Your task to perform on an android device: Open Chrome and go to the settings page Image 0: 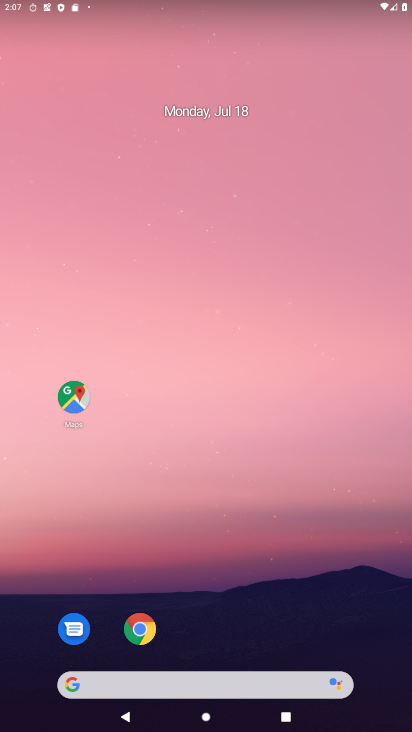
Step 0: press home button
Your task to perform on an android device: Open Chrome and go to the settings page Image 1: 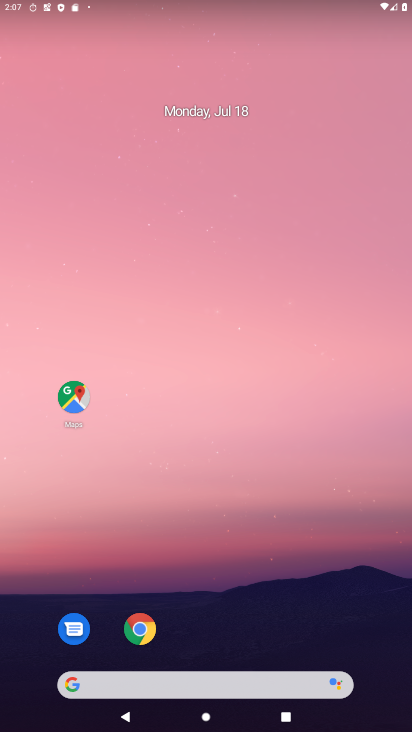
Step 1: drag from (199, 637) to (224, 149)
Your task to perform on an android device: Open Chrome and go to the settings page Image 2: 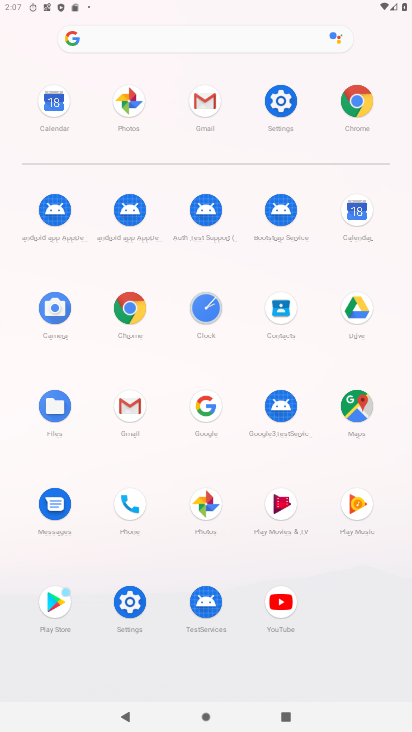
Step 2: click (277, 95)
Your task to perform on an android device: Open Chrome and go to the settings page Image 3: 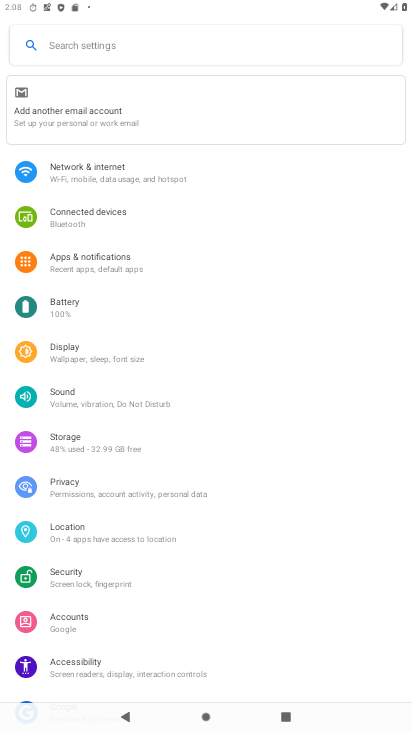
Step 3: press home button
Your task to perform on an android device: Open Chrome and go to the settings page Image 4: 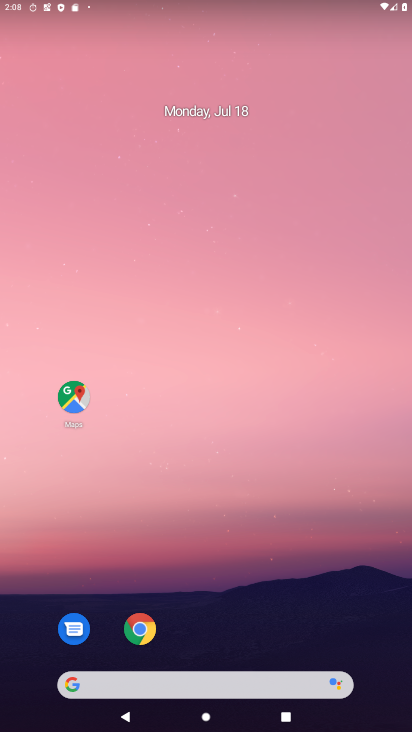
Step 4: drag from (225, 641) to (241, 99)
Your task to perform on an android device: Open Chrome and go to the settings page Image 5: 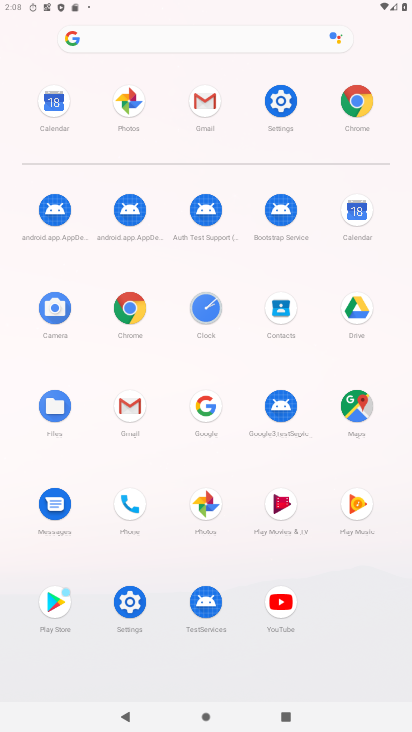
Step 5: click (132, 597)
Your task to perform on an android device: Open Chrome and go to the settings page Image 6: 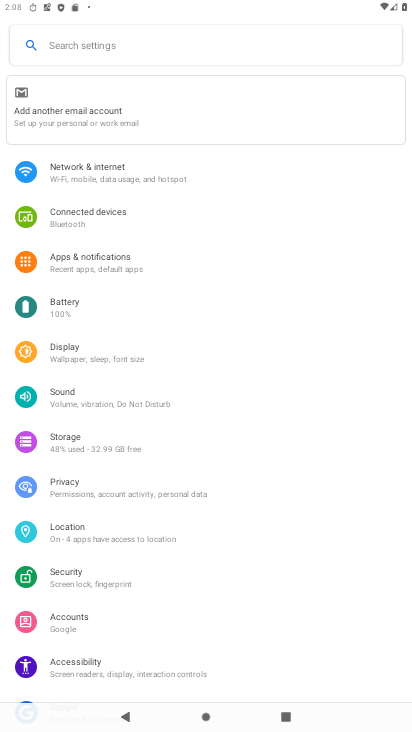
Step 6: press home button
Your task to perform on an android device: Open Chrome and go to the settings page Image 7: 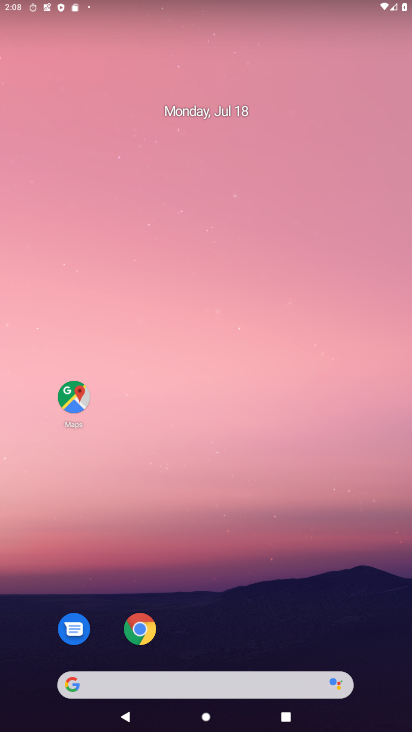
Step 7: drag from (225, 653) to (225, 85)
Your task to perform on an android device: Open Chrome and go to the settings page Image 8: 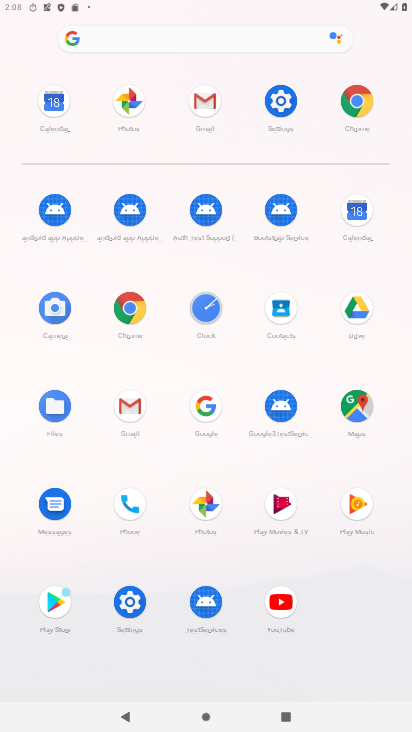
Step 8: click (351, 101)
Your task to perform on an android device: Open Chrome and go to the settings page Image 9: 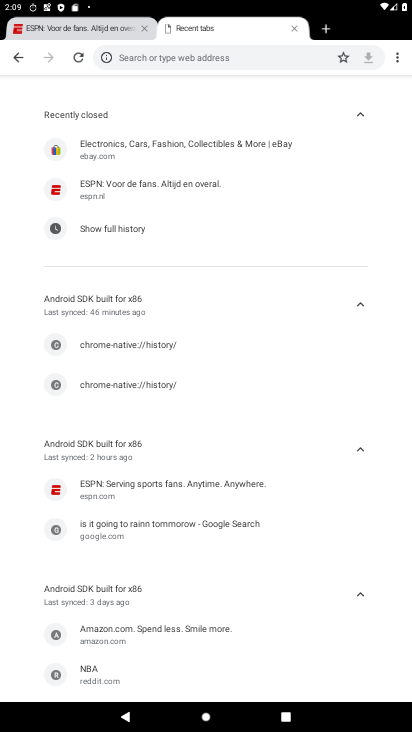
Step 9: click (399, 59)
Your task to perform on an android device: Open Chrome and go to the settings page Image 10: 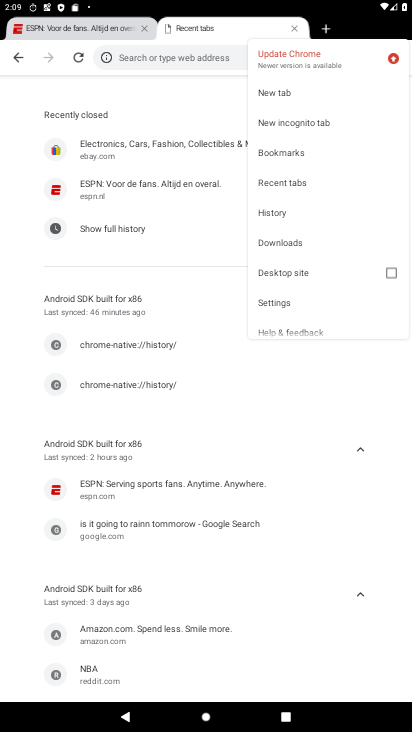
Step 10: click (305, 303)
Your task to perform on an android device: Open Chrome and go to the settings page Image 11: 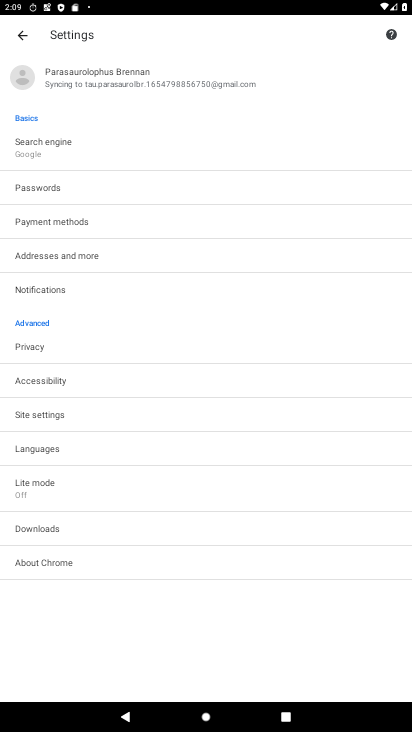
Step 11: task complete